Your task to perform on an android device: Search for pizza restaurants on Maps Image 0: 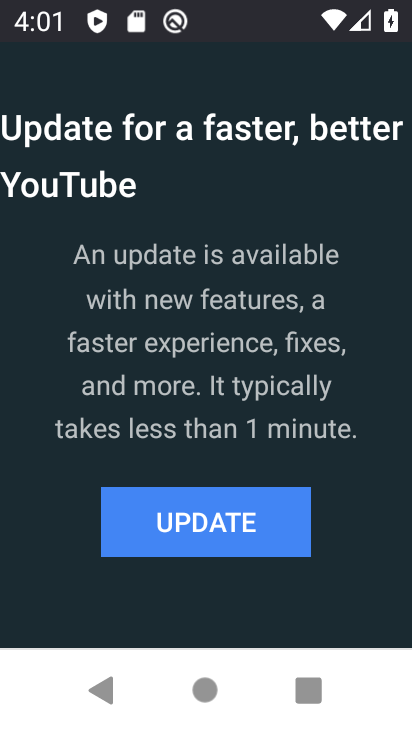
Step 0: click (193, 537)
Your task to perform on an android device: Search for pizza restaurants on Maps Image 1: 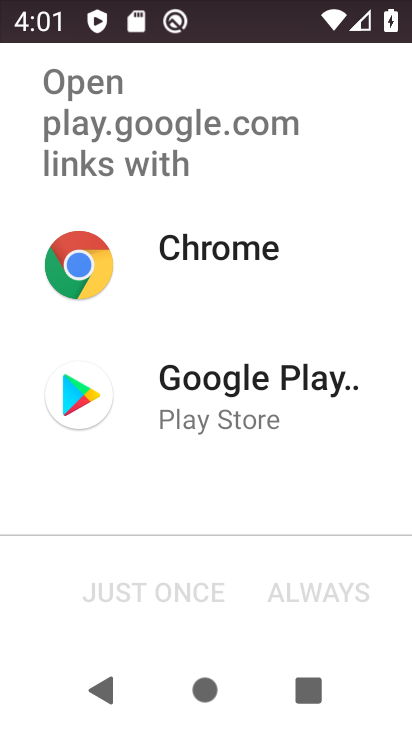
Step 1: press home button
Your task to perform on an android device: Search for pizza restaurants on Maps Image 2: 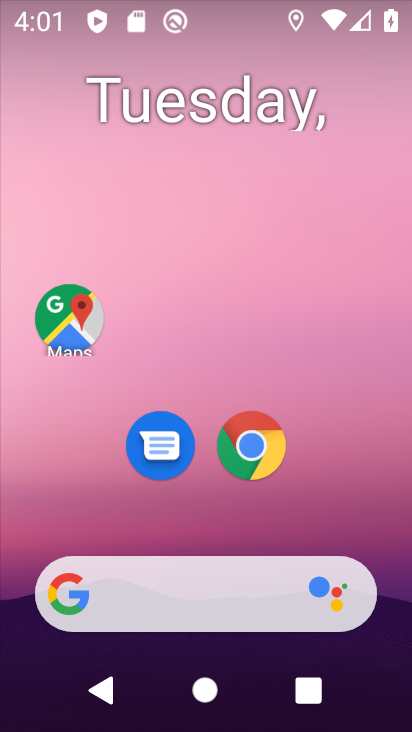
Step 2: drag from (288, 581) to (265, 72)
Your task to perform on an android device: Search for pizza restaurants on Maps Image 3: 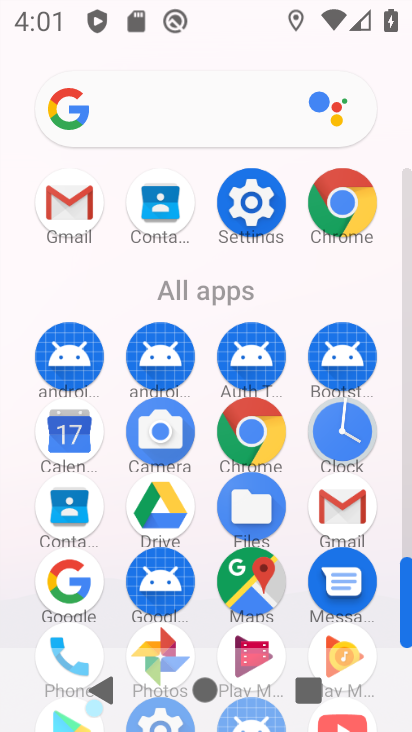
Step 3: click (255, 589)
Your task to perform on an android device: Search for pizza restaurants on Maps Image 4: 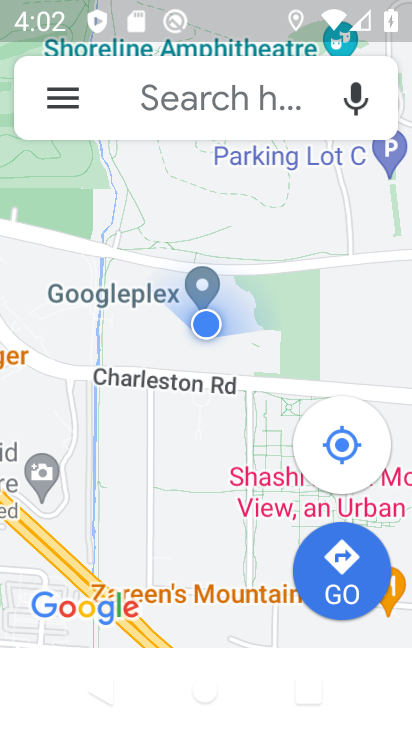
Step 4: click (226, 82)
Your task to perform on an android device: Search for pizza restaurants on Maps Image 5: 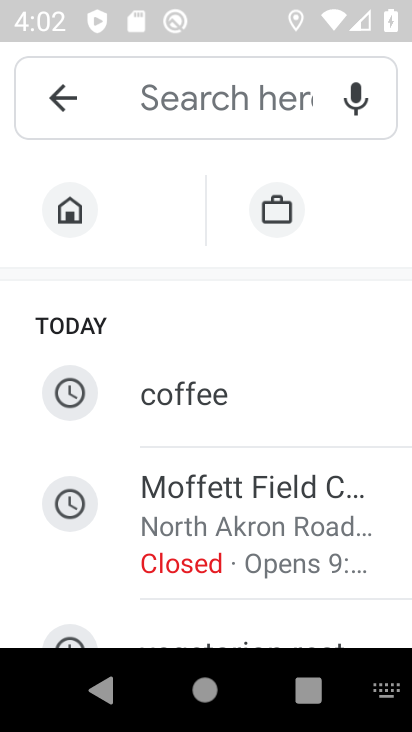
Step 5: type "pizza restaurant"
Your task to perform on an android device: Search for pizza restaurants on Maps Image 6: 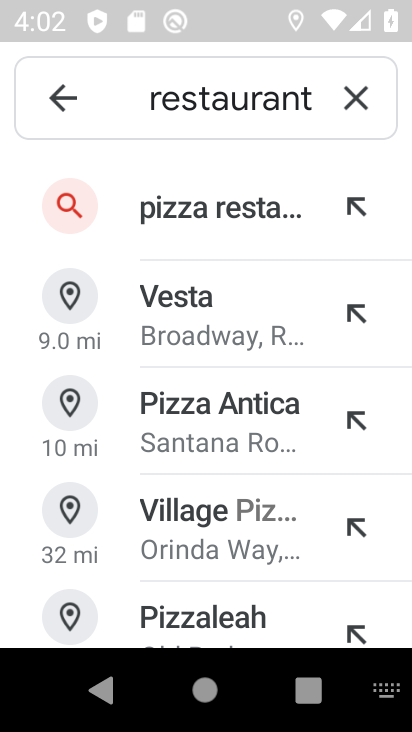
Step 6: click (259, 239)
Your task to perform on an android device: Search for pizza restaurants on Maps Image 7: 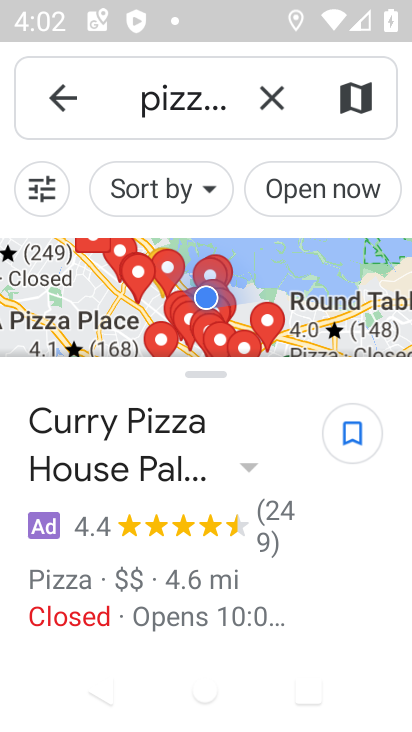
Step 7: task complete